Your task to perform on an android device: turn on bluetooth scan Image 0: 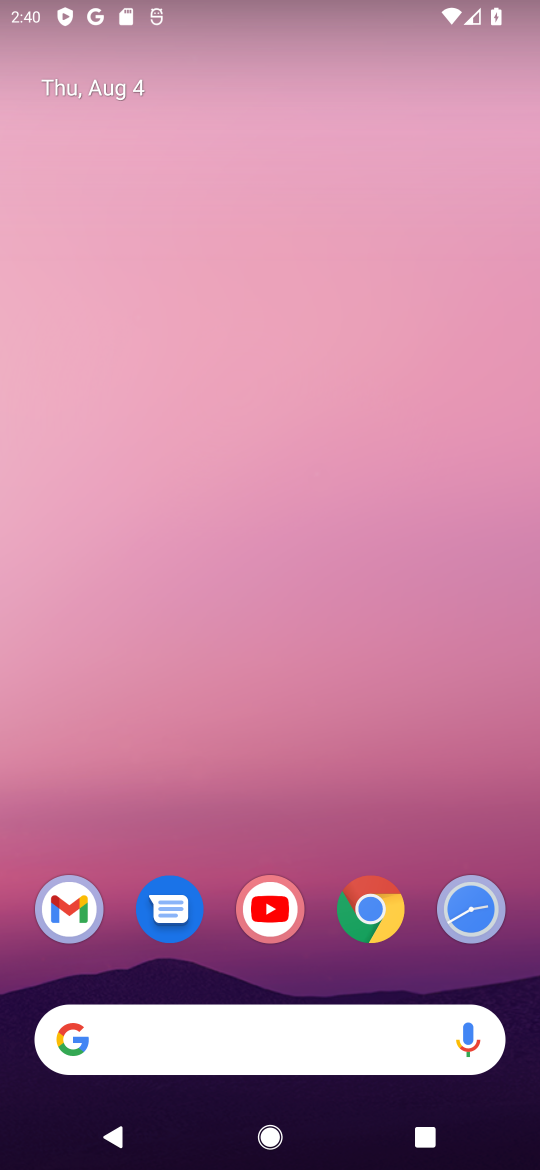
Step 0: drag from (251, 1019) to (466, 144)
Your task to perform on an android device: turn on bluetooth scan Image 1: 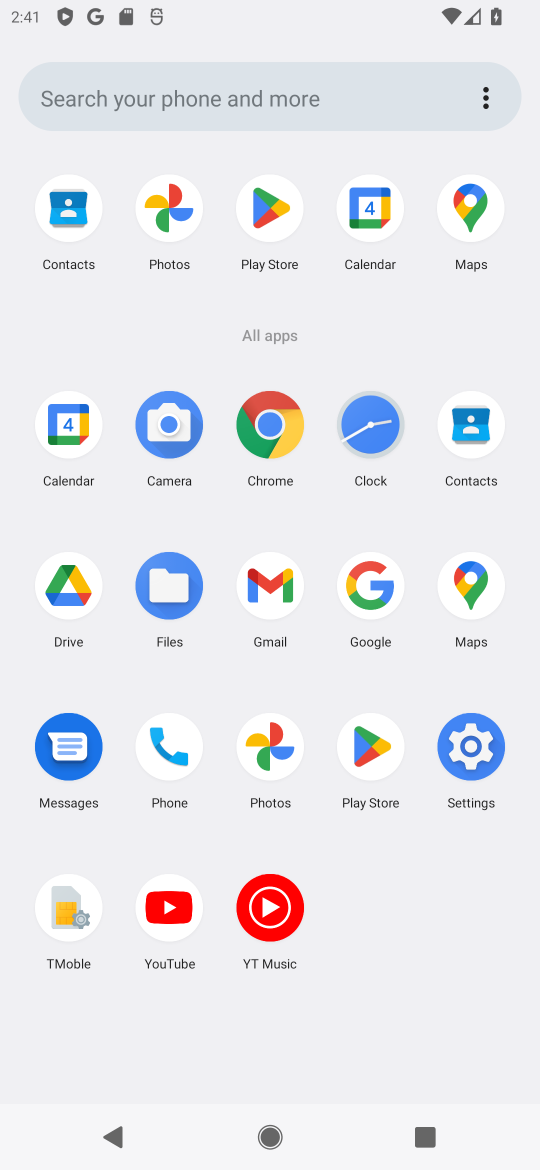
Step 1: click (458, 741)
Your task to perform on an android device: turn on bluetooth scan Image 2: 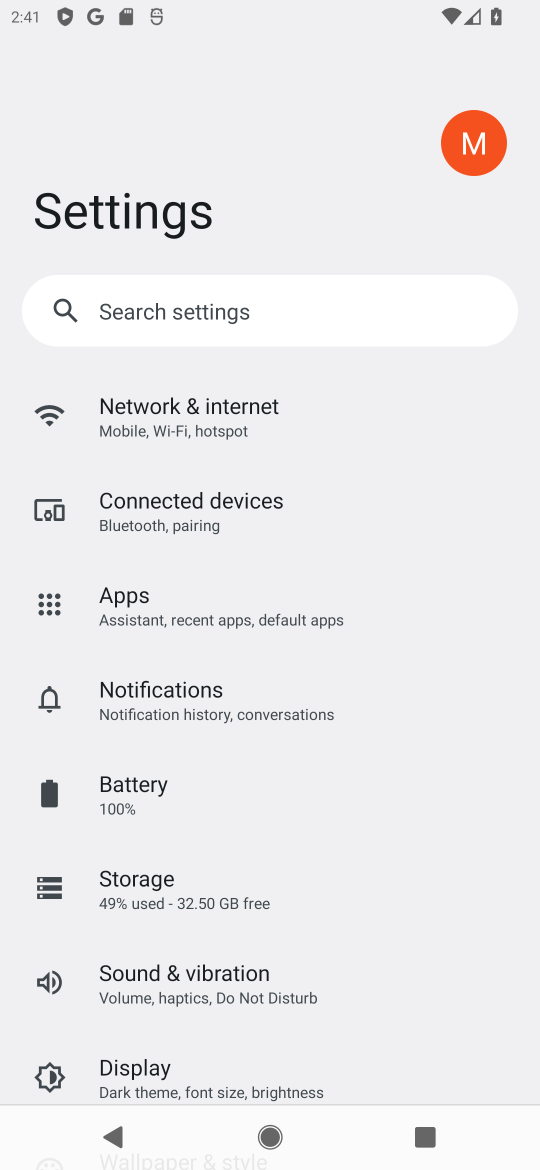
Step 2: drag from (376, 918) to (539, 146)
Your task to perform on an android device: turn on bluetooth scan Image 3: 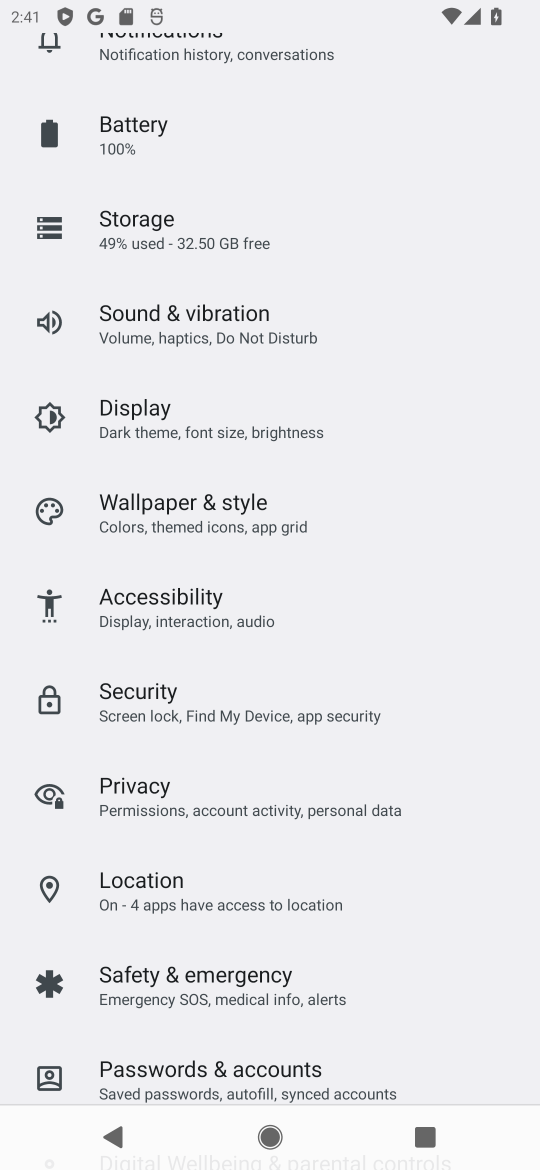
Step 3: click (202, 884)
Your task to perform on an android device: turn on bluetooth scan Image 4: 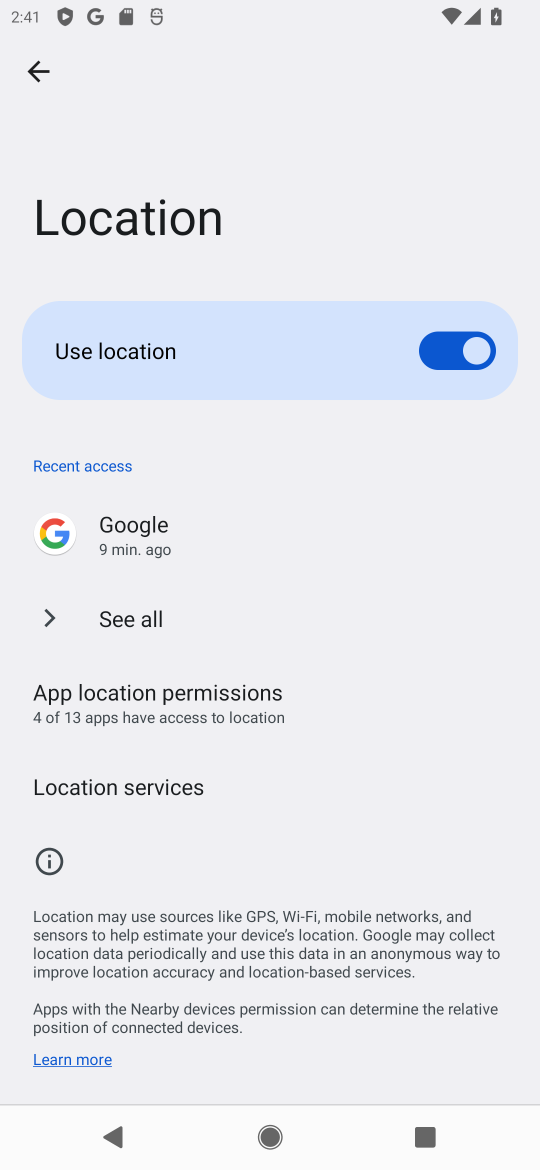
Step 4: drag from (230, 851) to (364, 383)
Your task to perform on an android device: turn on bluetooth scan Image 5: 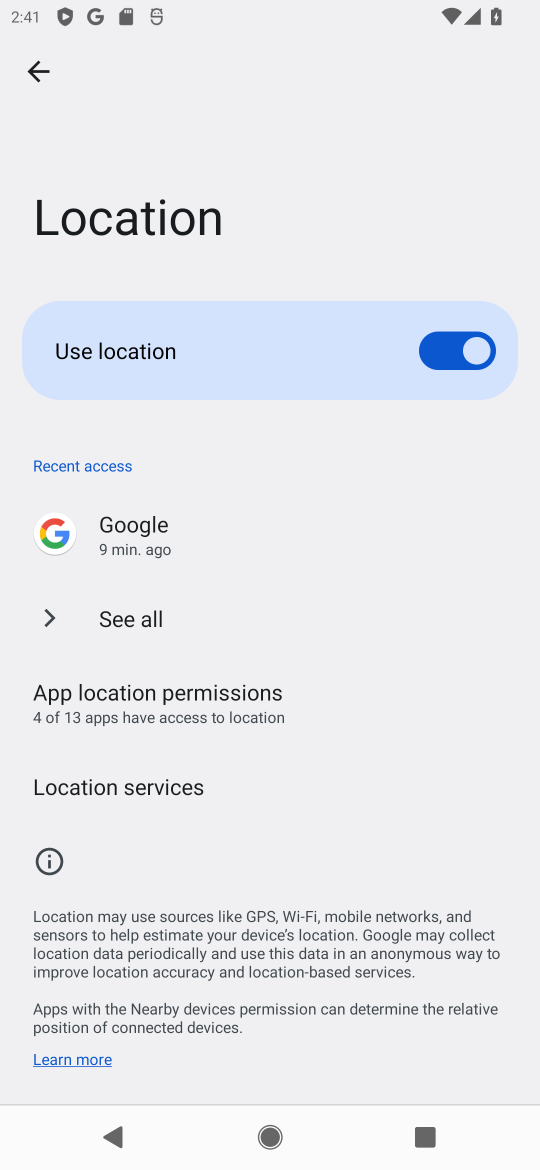
Step 5: click (186, 788)
Your task to perform on an android device: turn on bluetooth scan Image 6: 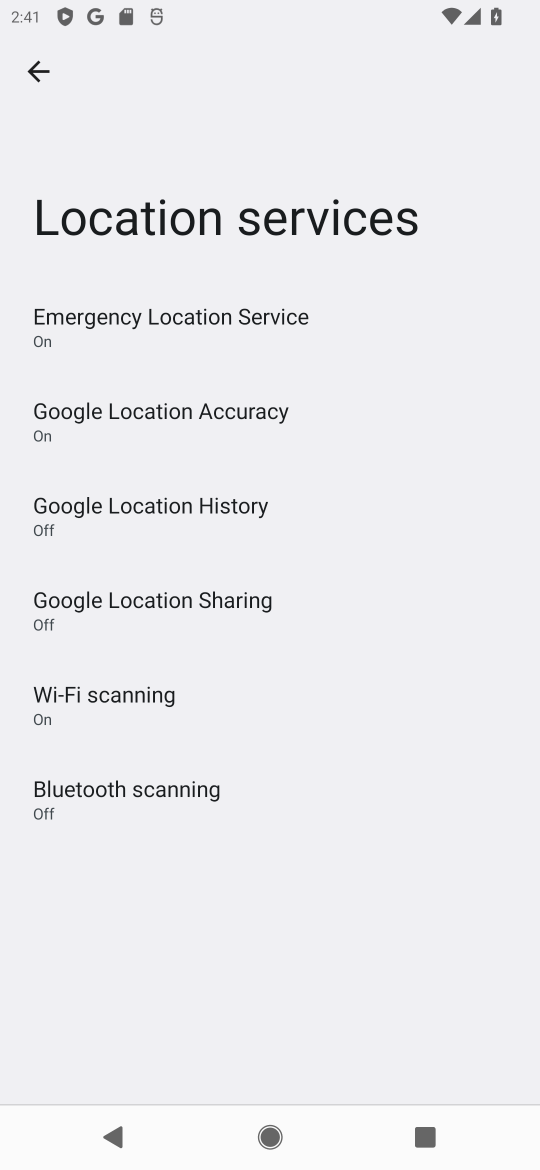
Step 6: click (223, 792)
Your task to perform on an android device: turn on bluetooth scan Image 7: 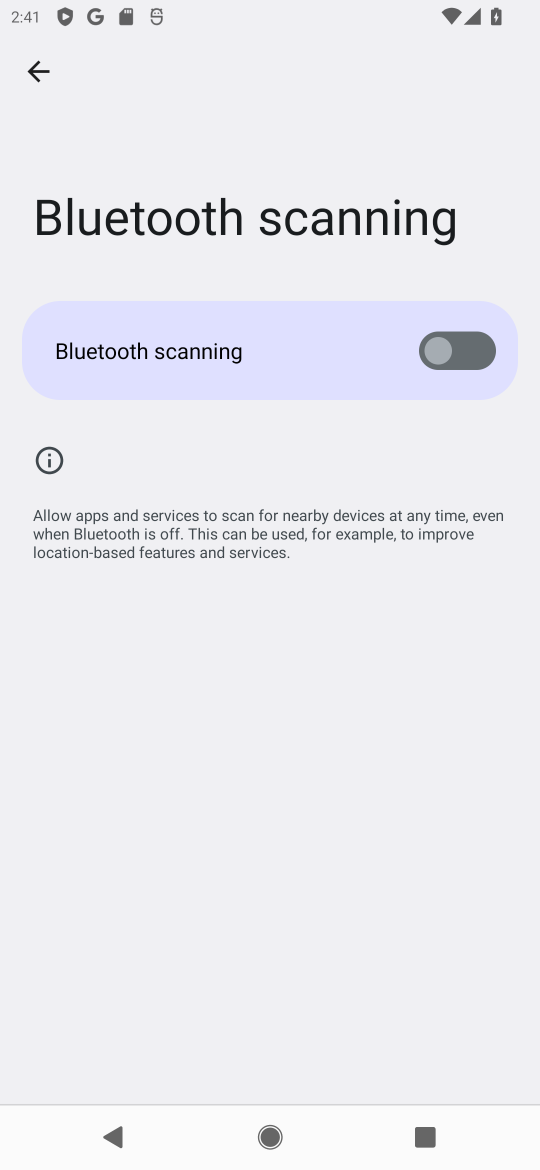
Step 7: click (471, 346)
Your task to perform on an android device: turn on bluetooth scan Image 8: 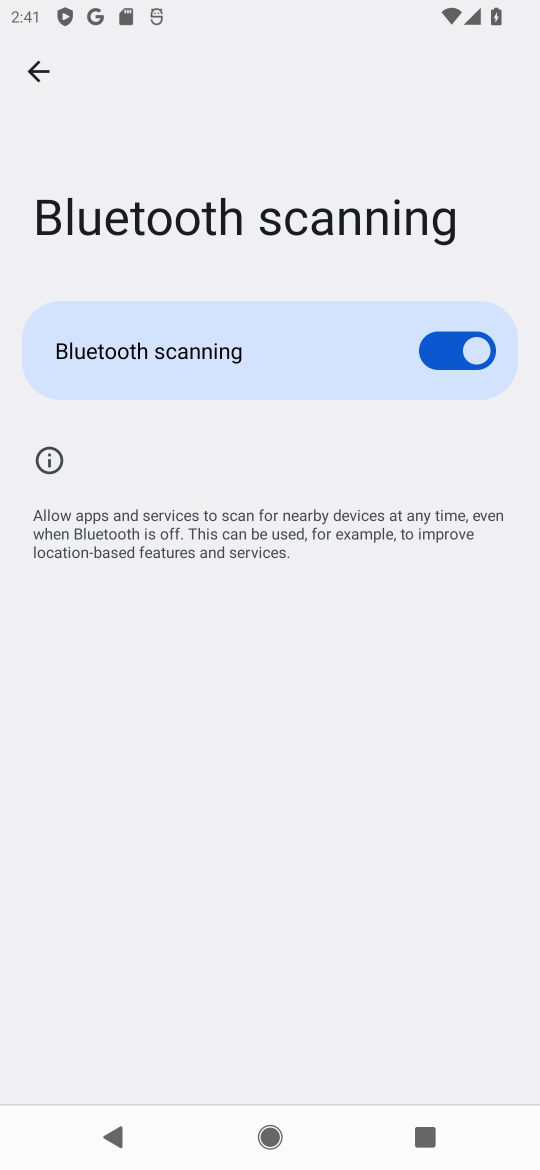
Step 8: task complete